Your task to perform on an android device: Set an alarm for 6am Image 0: 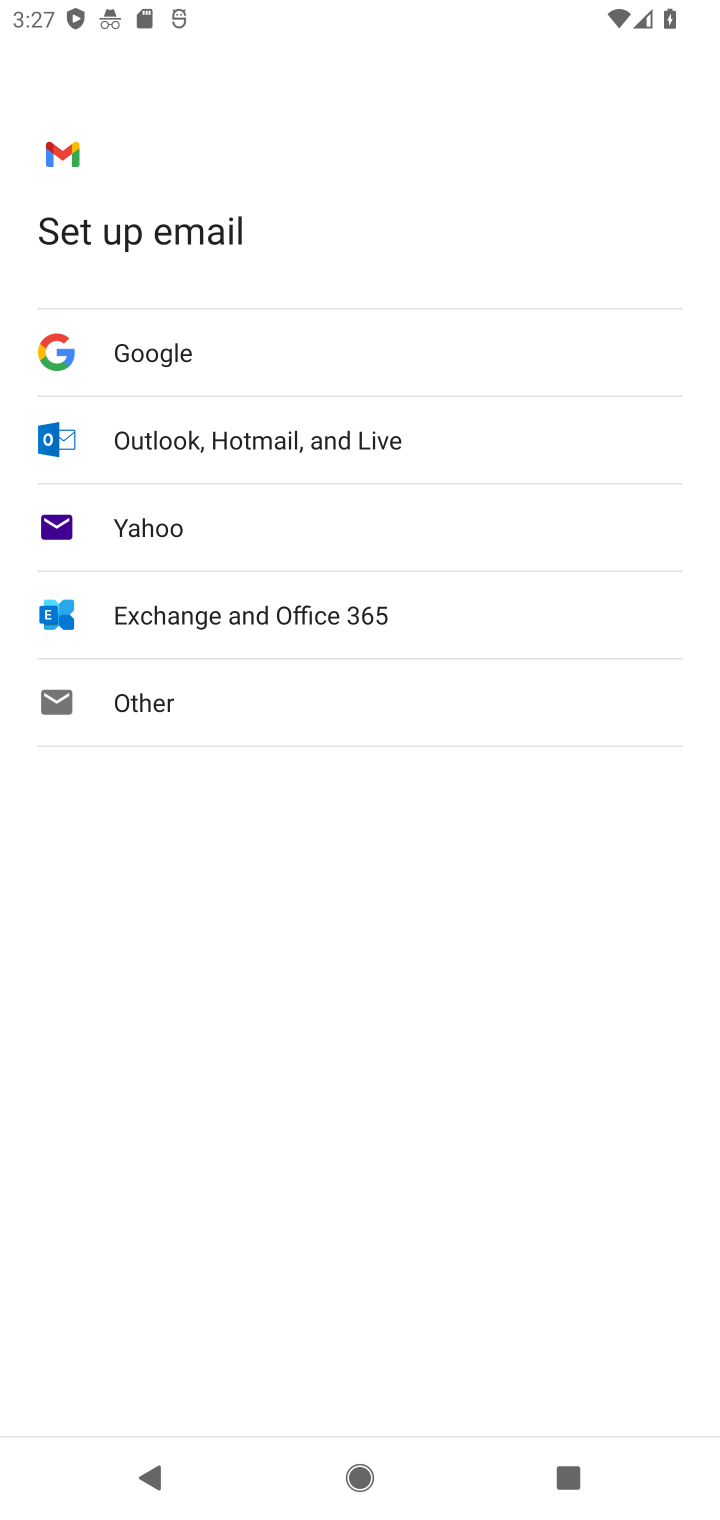
Step 0: press home button
Your task to perform on an android device: Set an alarm for 6am Image 1: 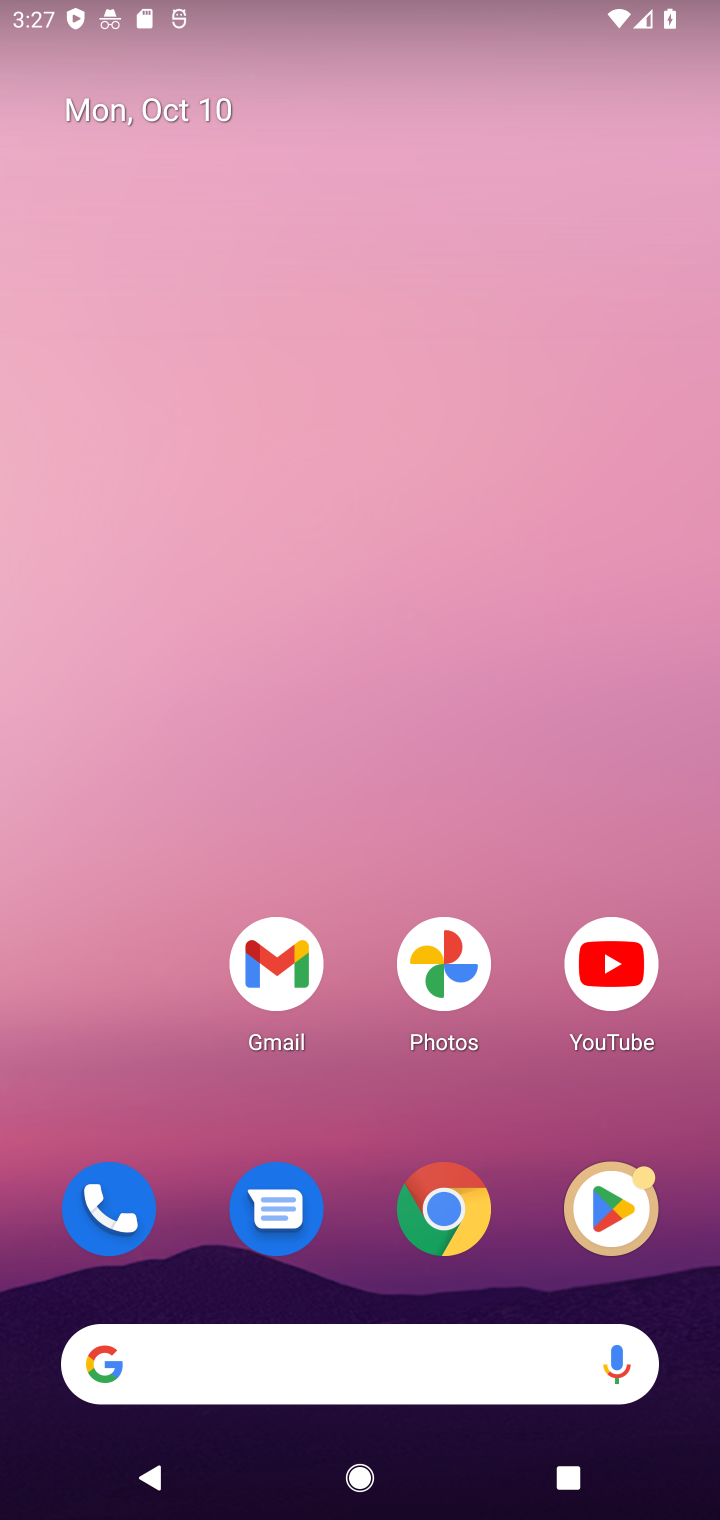
Step 1: drag from (437, 1381) to (59, 687)
Your task to perform on an android device: Set an alarm for 6am Image 2: 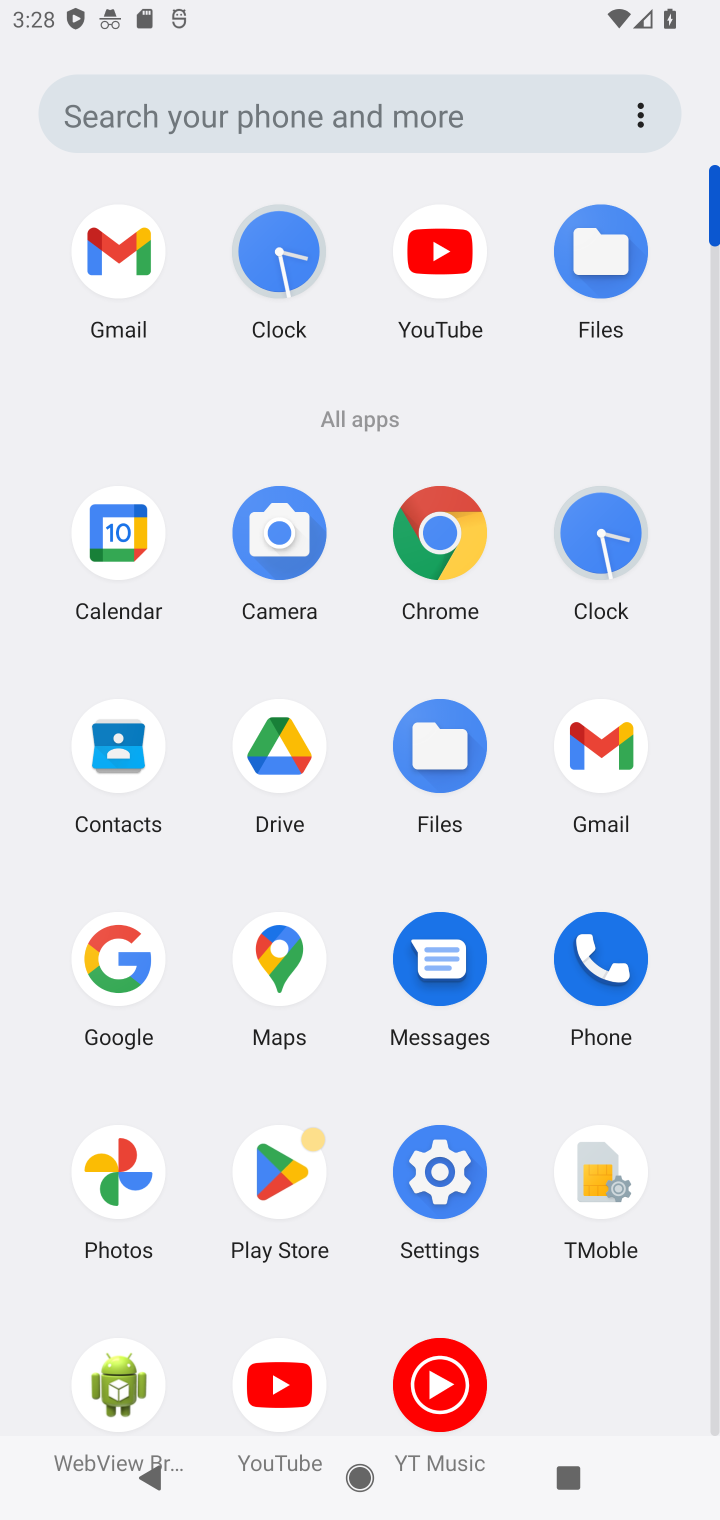
Step 2: click (598, 540)
Your task to perform on an android device: Set an alarm for 6am Image 3: 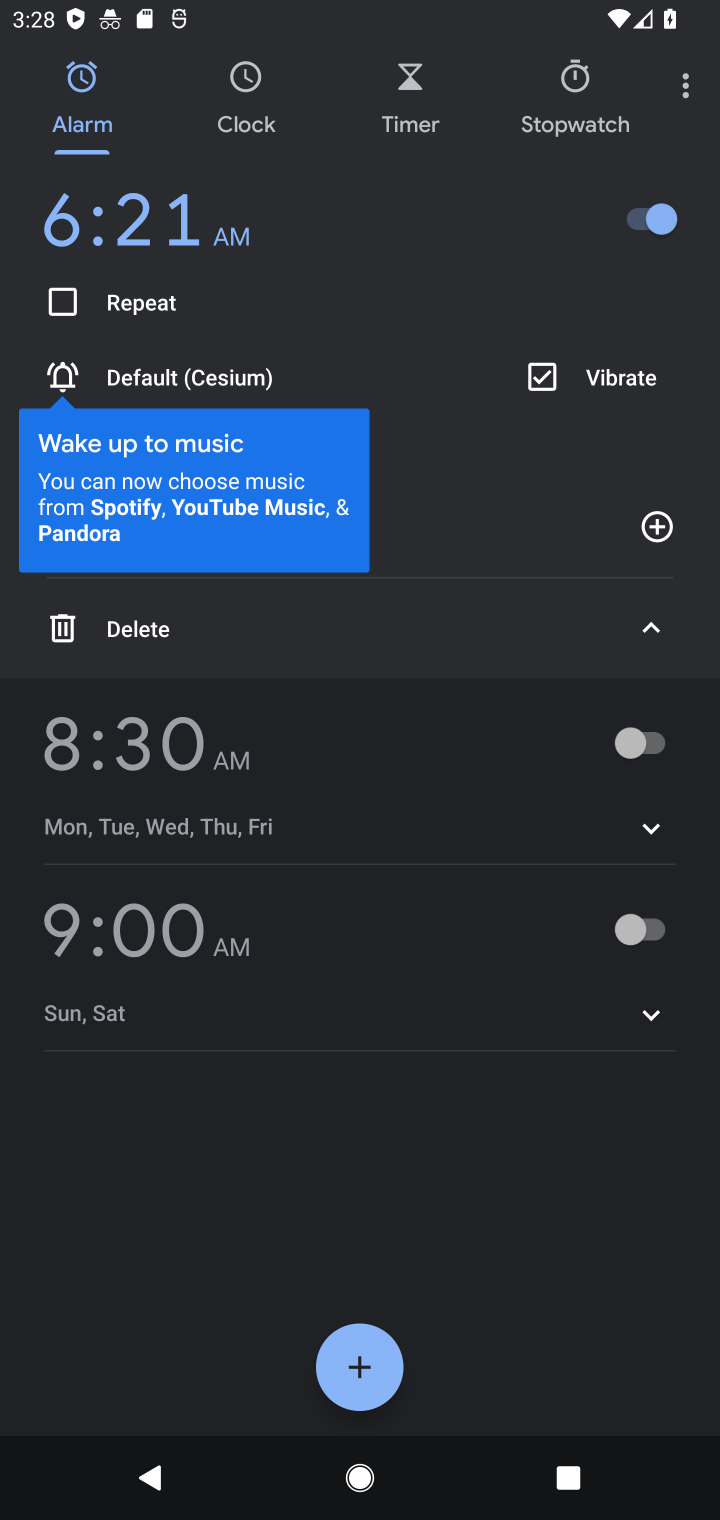
Step 3: click (373, 1364)
Your task to perform on an android device: Set an alarm for 6am Image 4: 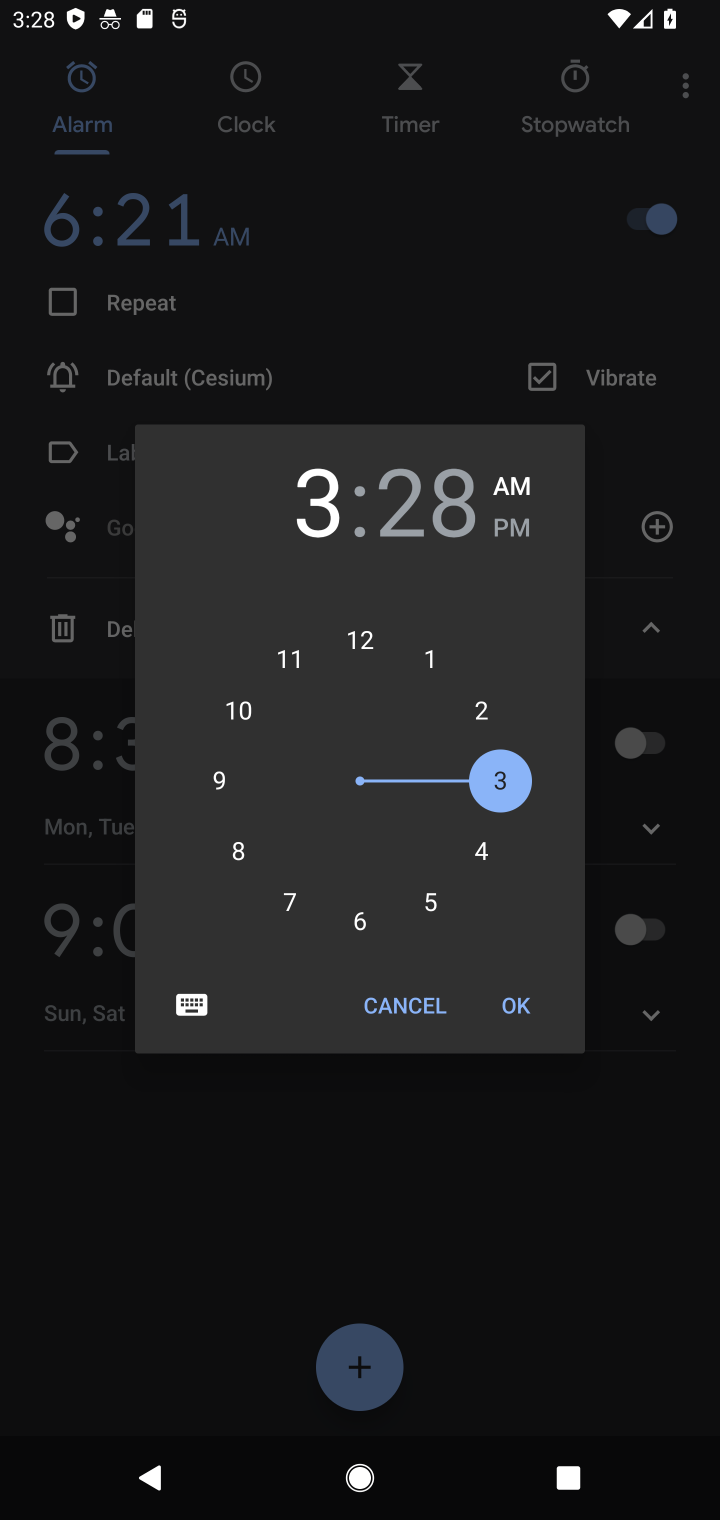
Step 4: click (357, 932)
Your task to perform on an android device: Set an alarm for 6am Image 5: 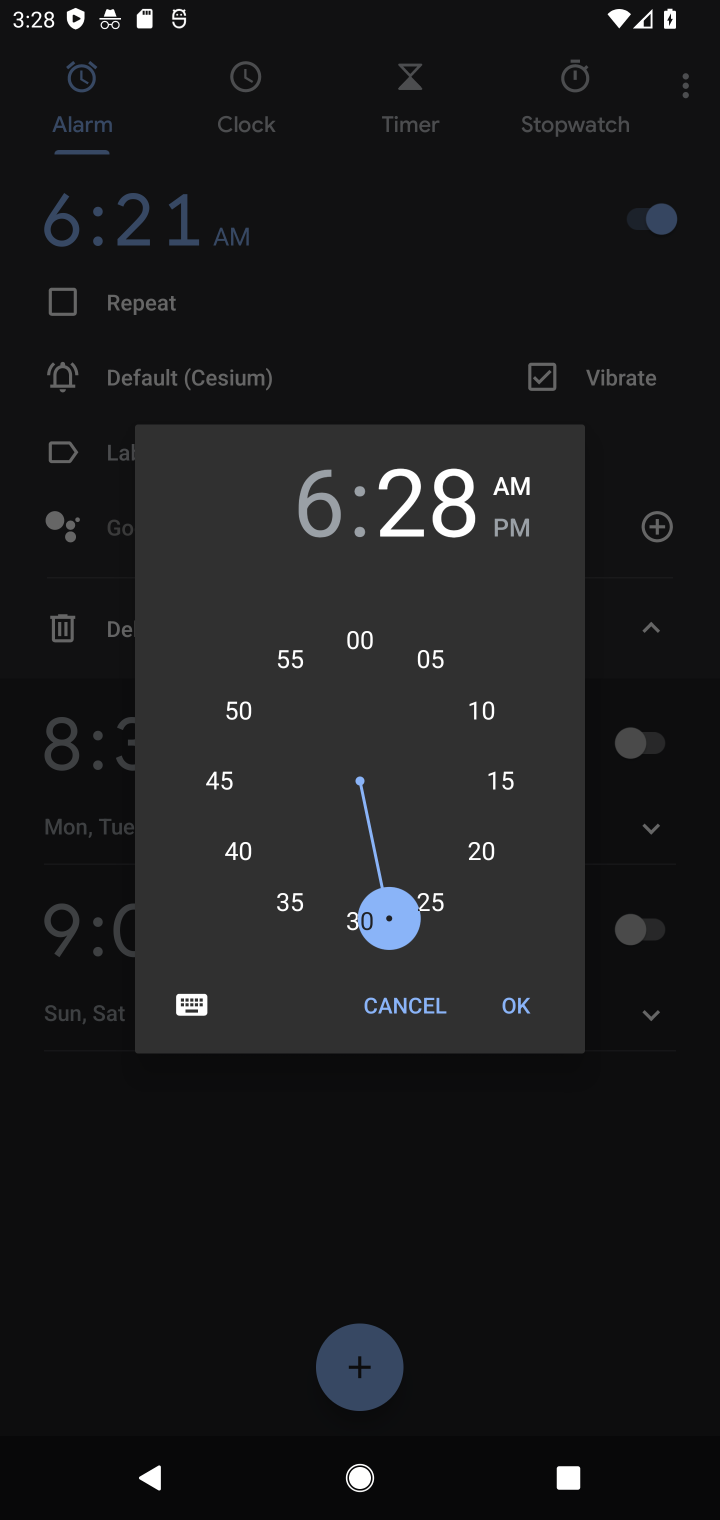
Step 5: click (355, 637)
Your task to perform on an android device: Set an alarm for 6am Image 6: 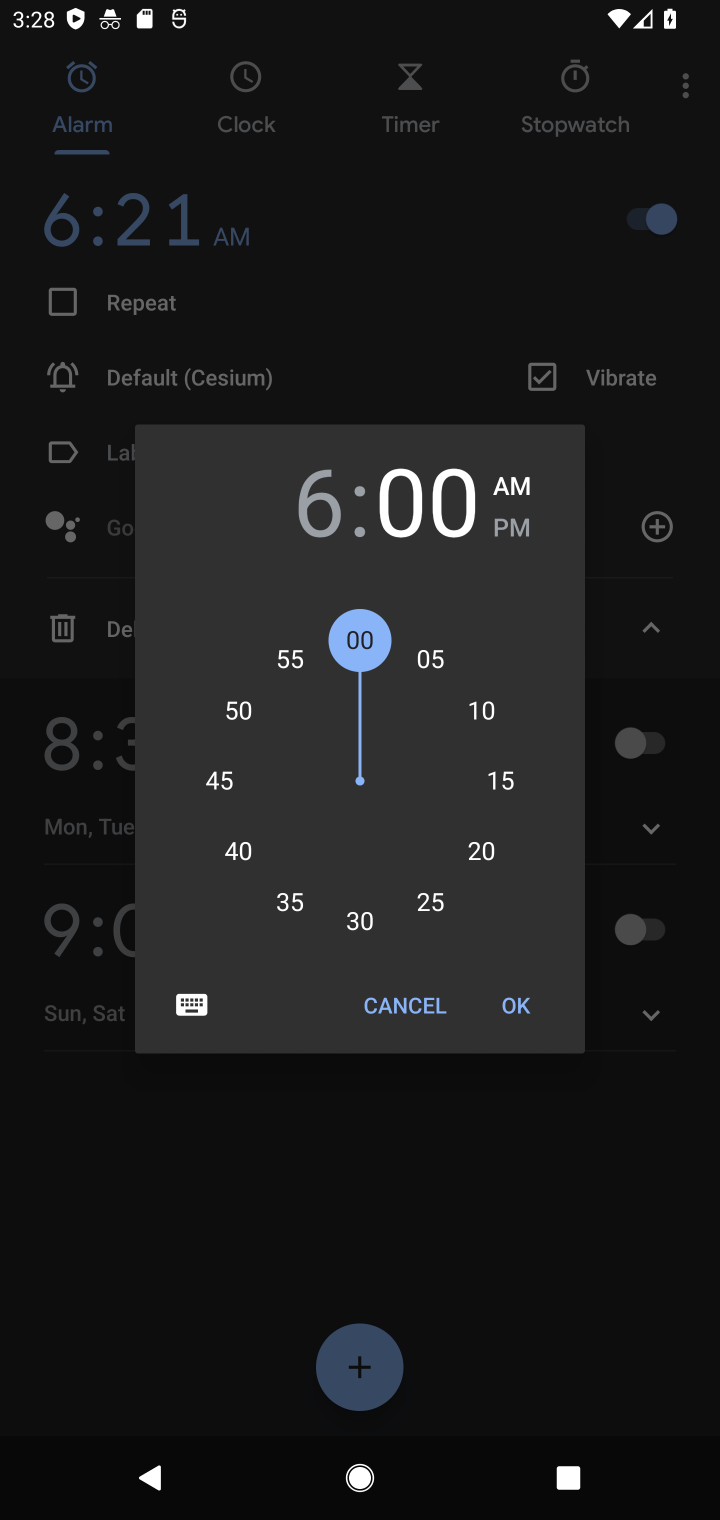
Step 6: click (529, 1013)
Your task to perform on an android device: Set an alarm for 6am Image 7: 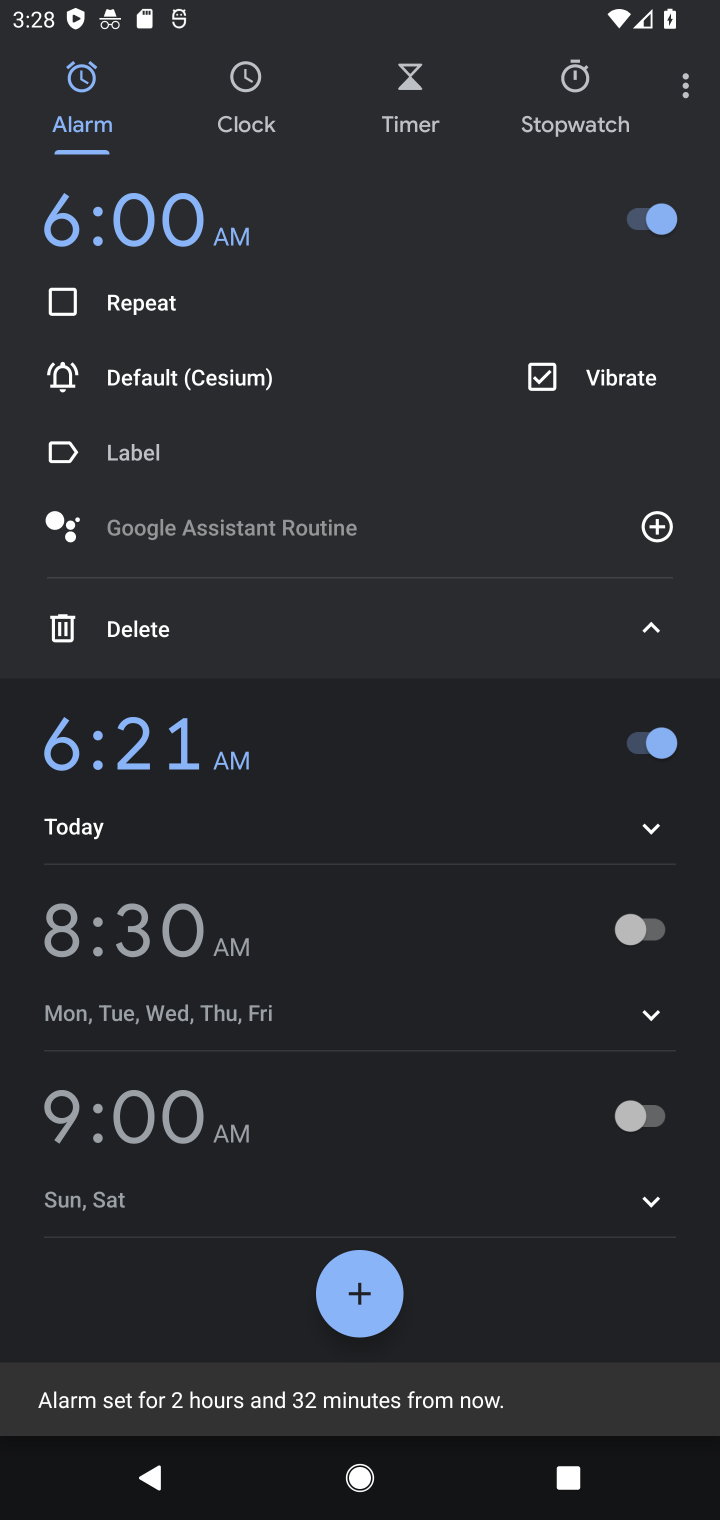
Step 7: task complete